Your task to perform on an android device: Open accessibility settings Image 0: 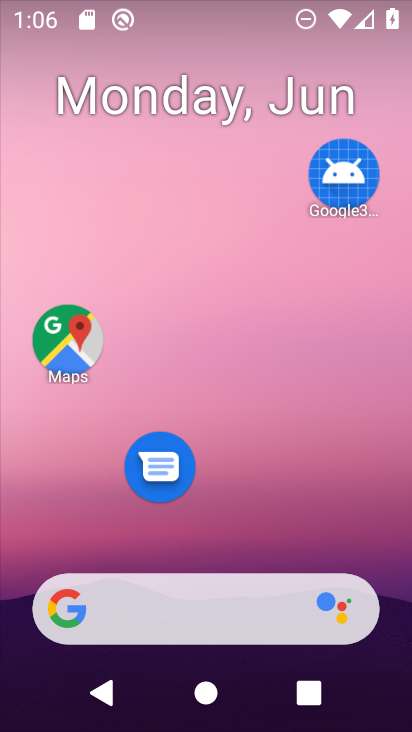
Step 0: press home button
Your task to perform on an android device: Open accessibility settings Image 1: 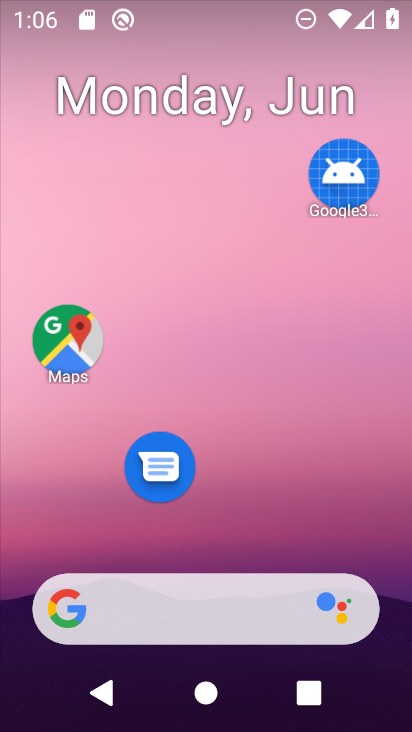
Step 1: drag from (329, 589) to (311, 73)
Your task to perform on an android device: Open accessibility settings Image 2: 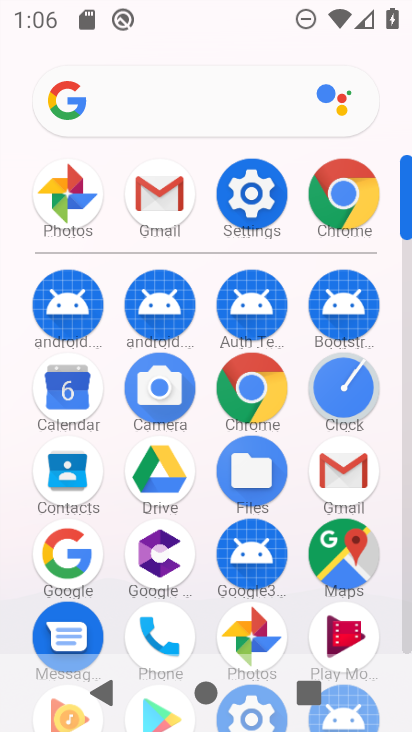
Step 2: click (263, 203)
Your task to perform on an android device: Open accessibility settings Image 3: 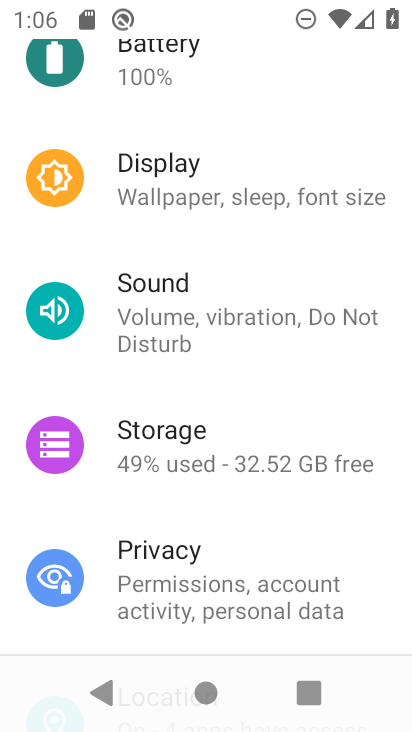
Step 3: drag from (289, 627) to (319, 251)
Your task to perform on an android device: Open accessibility settings Image 4: 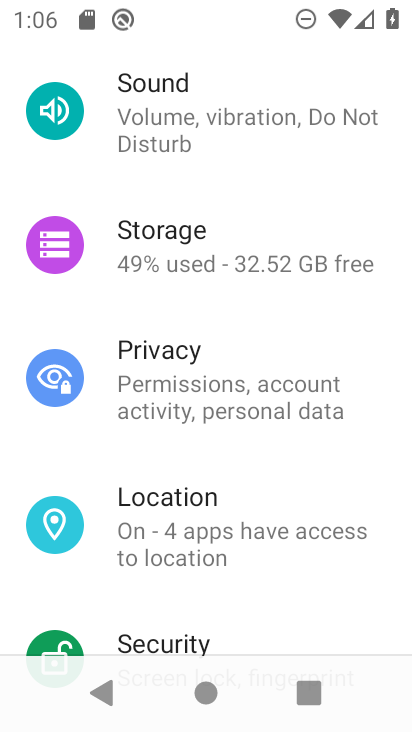
Step 4: drag from (309, 527) to (344, 128)
Your task to perform on an android device: Open accessibility settings Image 5: 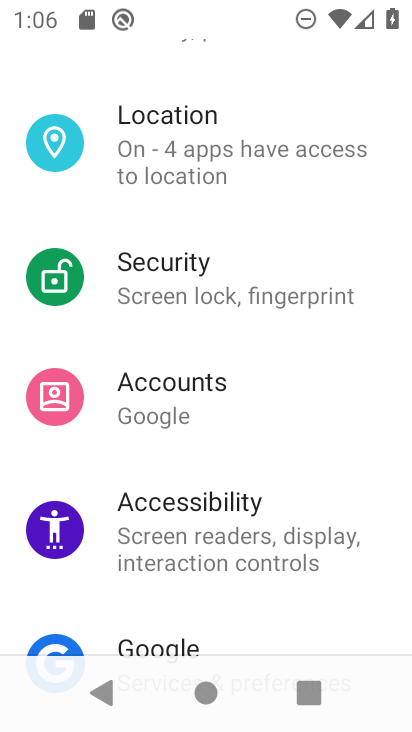
Step 5: click (138, 487)
Your task to perform on an android device: Open accessibility settings Image 6: 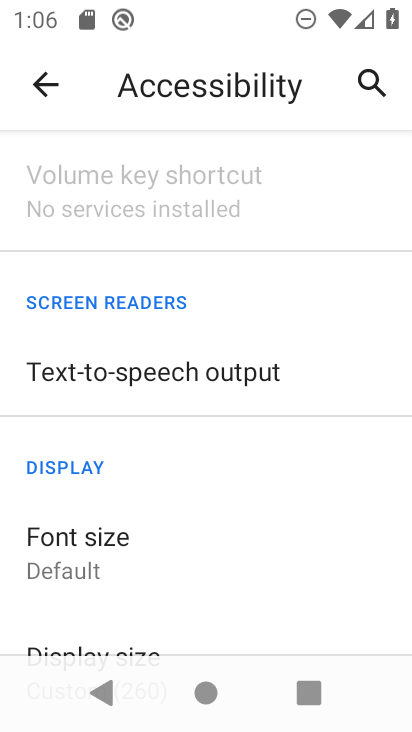
Step 6: task complete